Your task to perform on an android device: open a new tab in the chrome app Image 0: 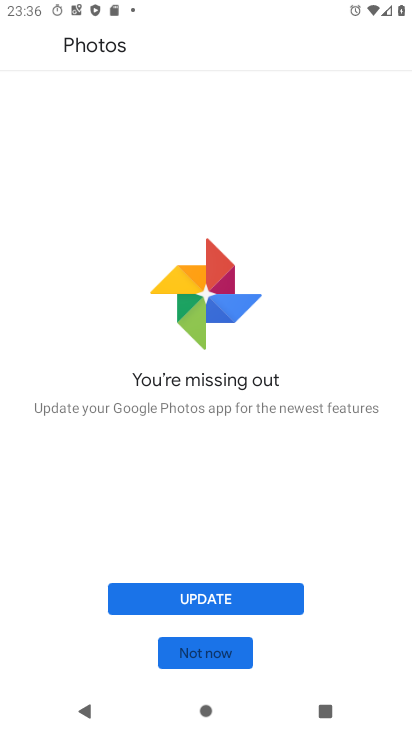
Step 0: press home button
Your task to perform on an android device: open a new tab in the chrome app Image 1: 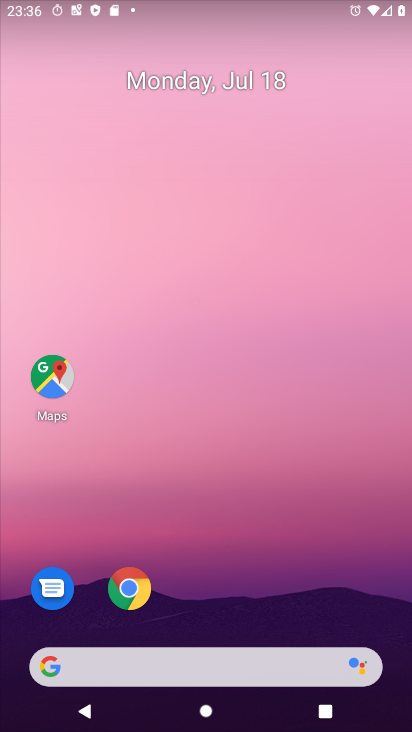
Step 1: click (134, 589)
Your task to perform on an android device: open a new tab in the chrome app Image 2: 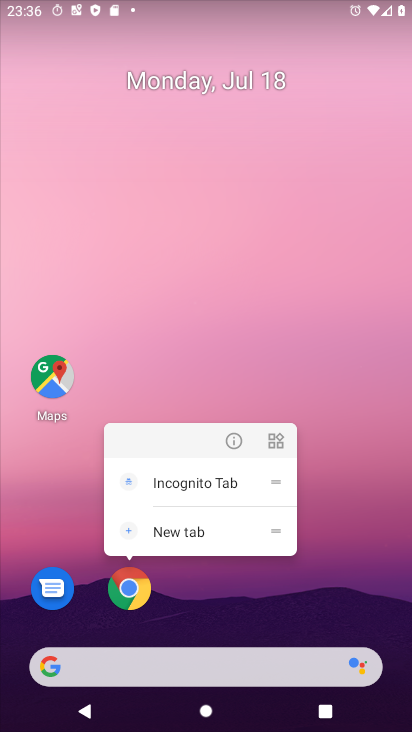
Step 2: click (127, 588)
Your task to perform on an android device: open a new tab in the chrome app Image 3: 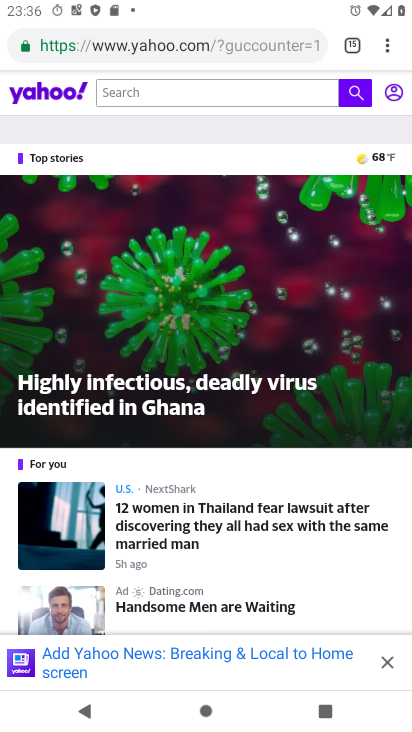
Step 3: task complete